Your task to perform on an android device: Open the Play Movies app and select the watchlist tab. Image 0: 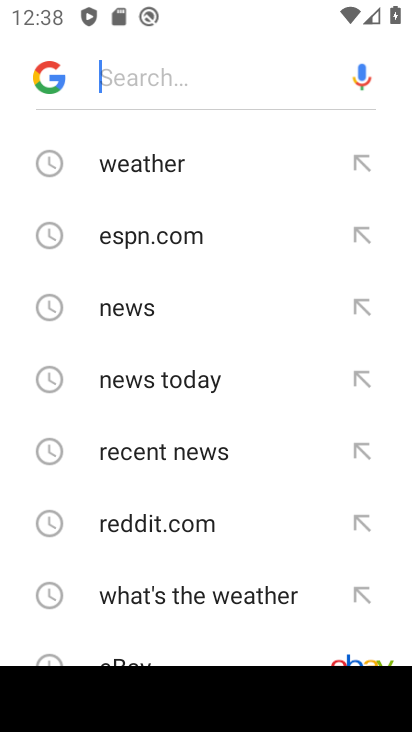
Step 0: press home button
Your task to perform on an android device: Open the Play Movies app and select the watchlist tab. Image 1: 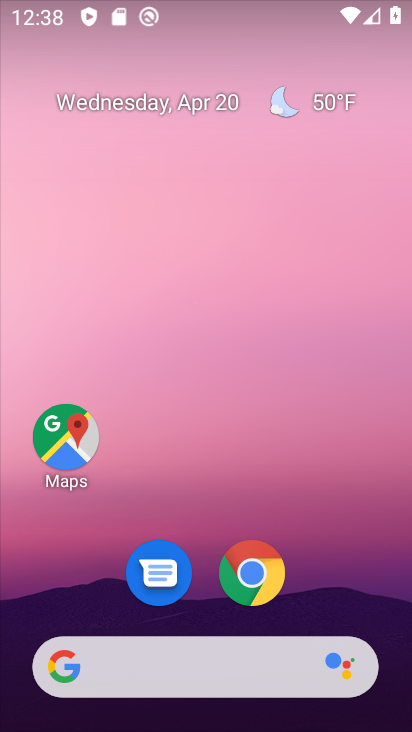
Step 1: drag from (241, 625) to (205, 161)
Your task to perform on an android device: Open the Play Movies app and select the watchlist tab. Image 2: 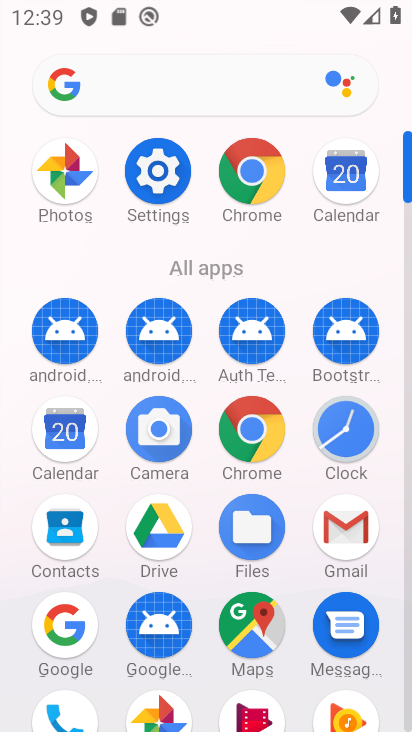
Step 2: drag from (208, 660) to (202, 370)
Your task to perform on an android device: Open the Play Movies app and select the watchlist tab. Image 3: 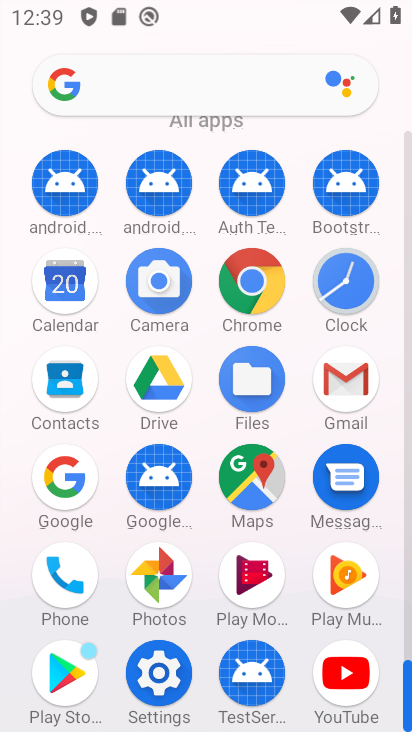
Step 3: click (263, 574)
Your task to perform on an android device: Open the Play Movies app and select the watchlist tab. Image 4: 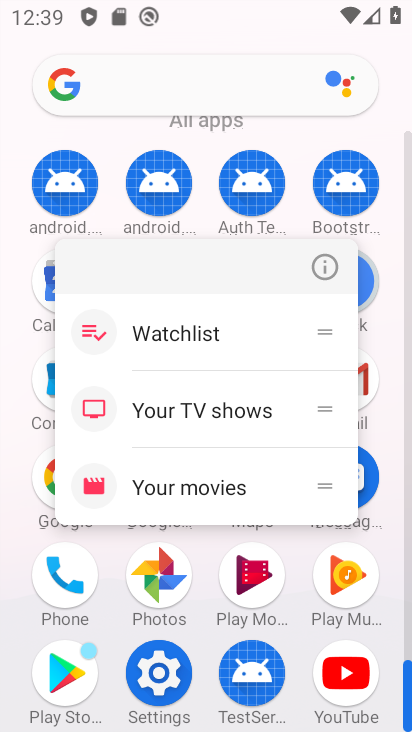
Step 4: click (260, 595)
Your task to perform on an android device: Open the Play Movies app and select the watchlist tab. Image 5: 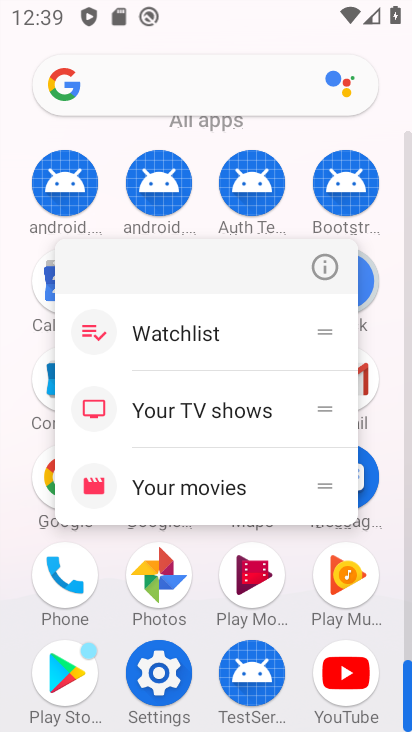
Step 5: click (276, 586)
Your task to perform on an android device: Open the Play Movies app and select the watchlist tab. Image 6: 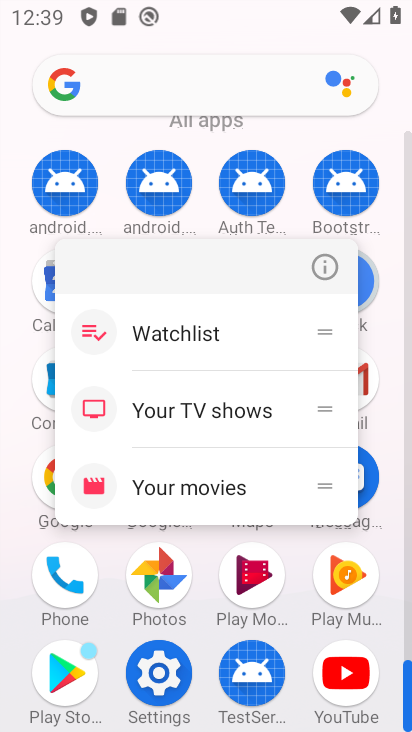
Step 6: click (257, 577)
Your task to perform on an android device: Open the Play Movies app and select the watchlist tab. Image 7: 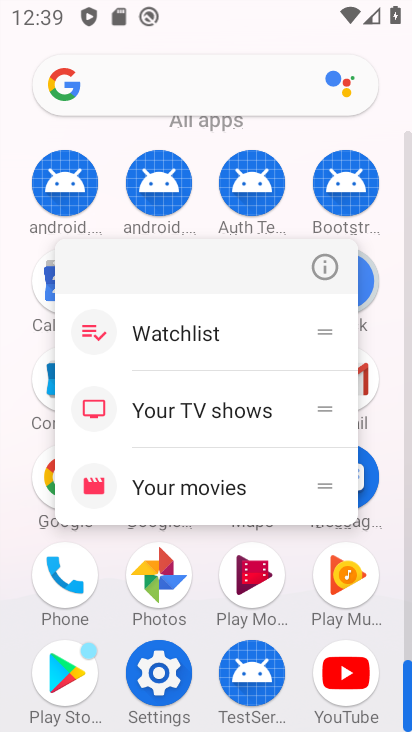
Step 7: click (256, 578)
Your task to perform on an android device: Open the Play Movies app and select the watchlist tab. Image 8: 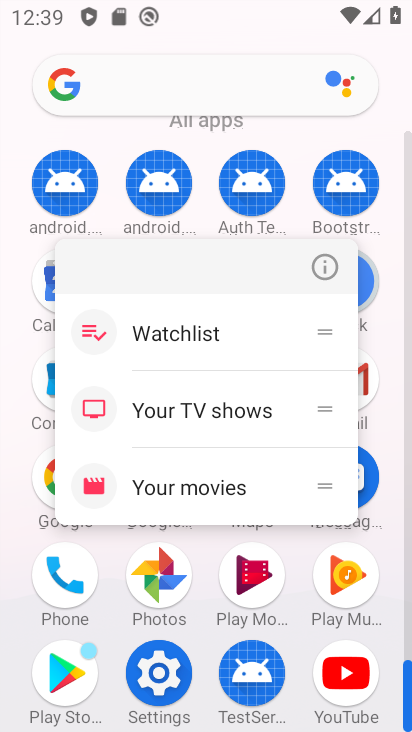
Step 8: click (251, 572)
Your task to perform on an android device: Open the Play Movies app and select the watchlist tab. Image 9: 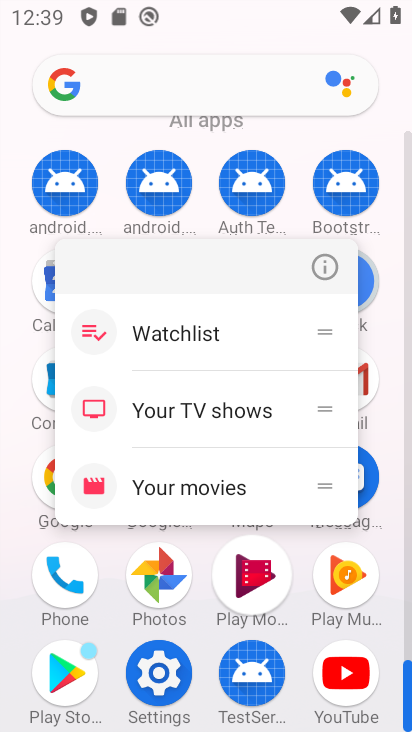
Step 9: click (251, 572)
Your task to perform on an android device: Open the Play Movies app and select the watchlist tab. Image 10: 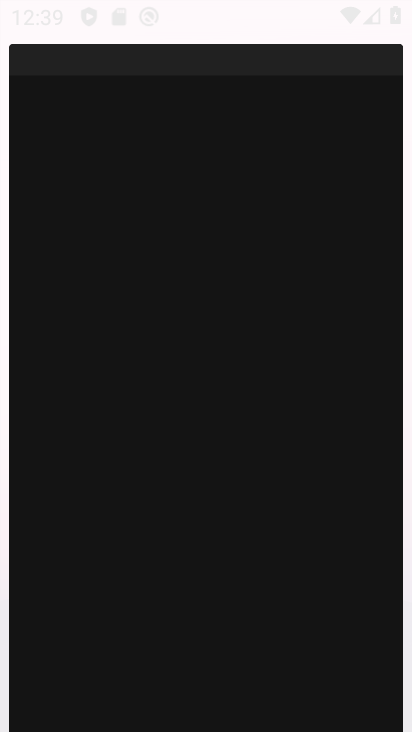
Step 10: click (251, 572)
Your task to perform on an android device: Open the Play Movies app and select the watchlist tab. Image 11: 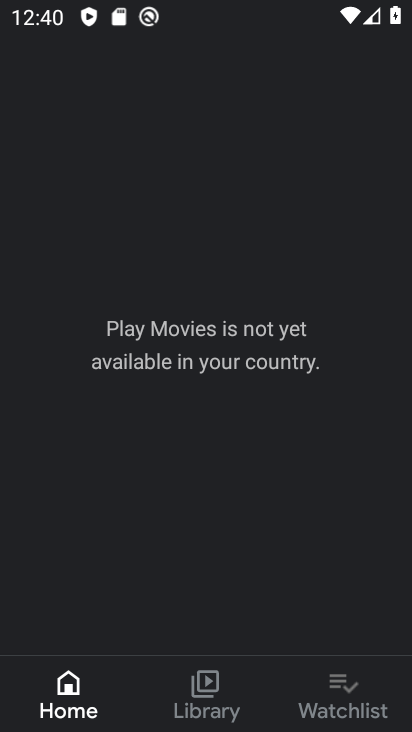
Step 11: click (329, 693)
Your task to perform on an android device: Open the Play Movies app and select the watchlist tab. Image 12: 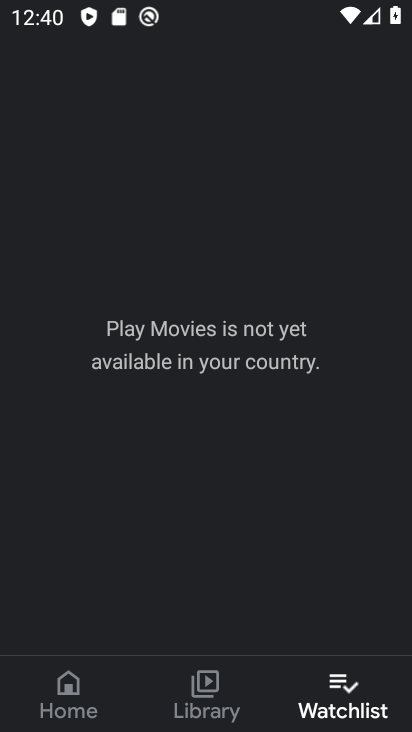
Step 12: task complete